Your task to perform on an android device: Go to Yahoo.com Image 0: 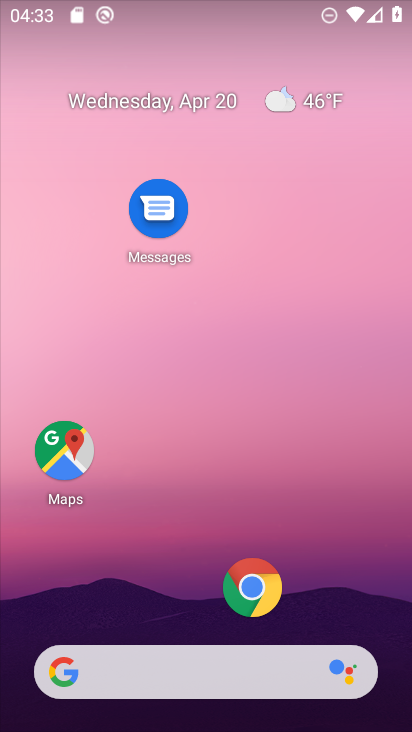
Step 0: click (171, 671)
Your task to perform on an android device: Go to Yahoo.com Image 1: 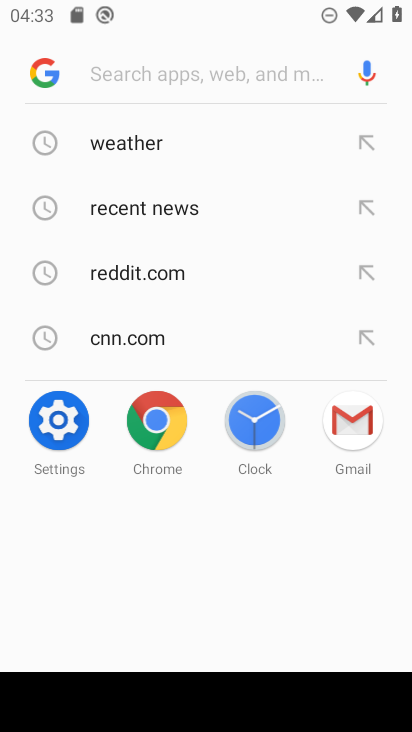
Step 1: type "Yahoo.com"
Your task to perform on an android device: Go to Yahoo.com Image 2: 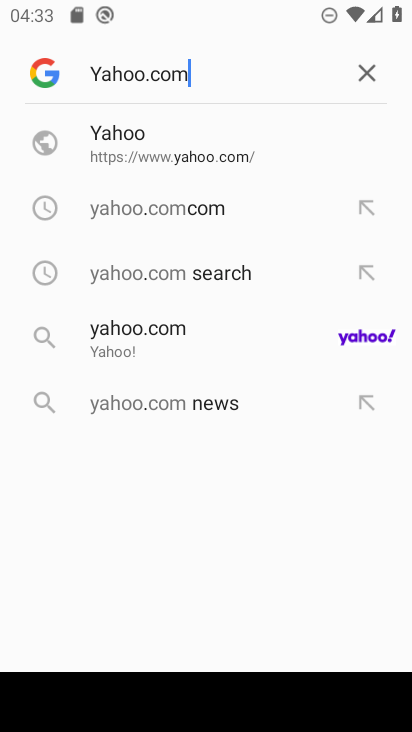
Step 2: click (152, 211)
Your task to perform on an android device: Go to Yahoo.com Image 3: 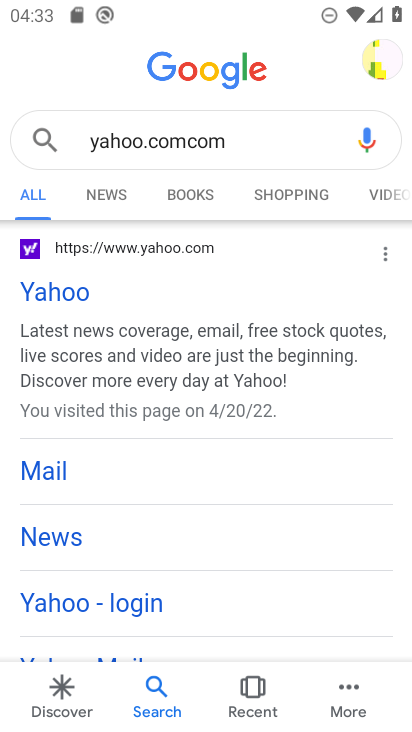
Step 3: click (59, 290)
Your task to perform on an android device: Go to Yahoo.com Image 4: 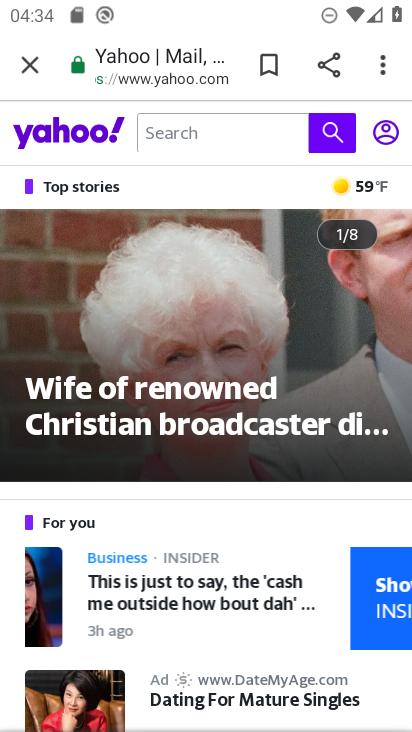
Step 4: task complete